Your task to perform on an android device: all mails in gmail Image 0: 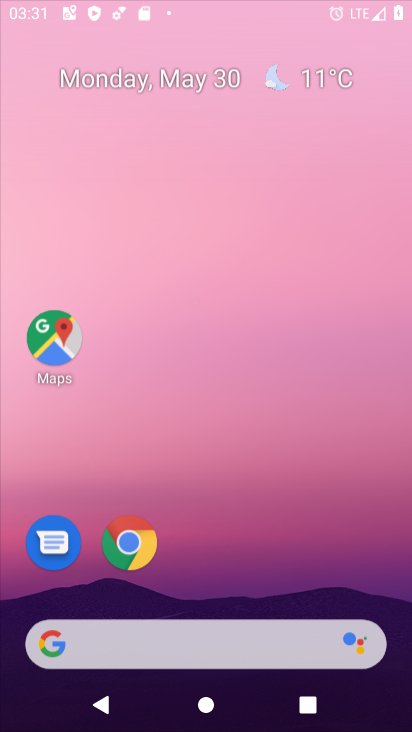
Step 0: press home button
Your task to perform on an android device: all mails in gmail Image 1: 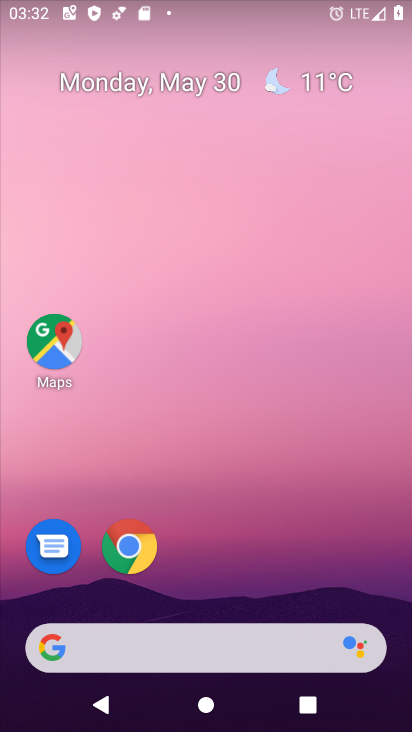
Step 1: drag from (217, 598) to (258, 10)
Your task to perform on an android device: all mails in gmail Image 2: 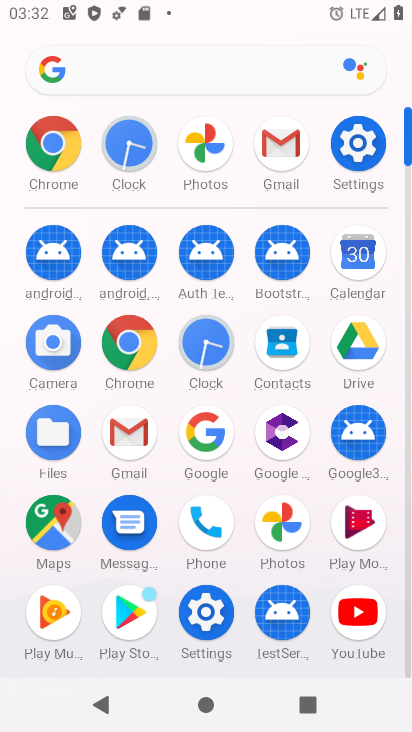
Step 2: click (289, 137)
Your task to perform on an android device: all mails in gmail Image 3: 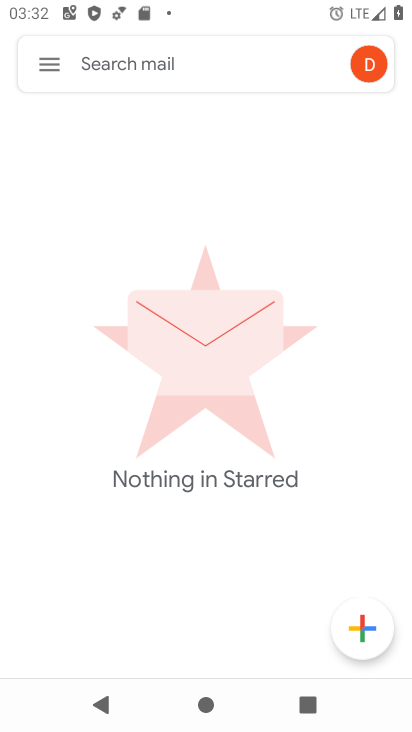
Step 3: click (66, 59)
Your task to perform on an android device: all mails in gmail Image 4: 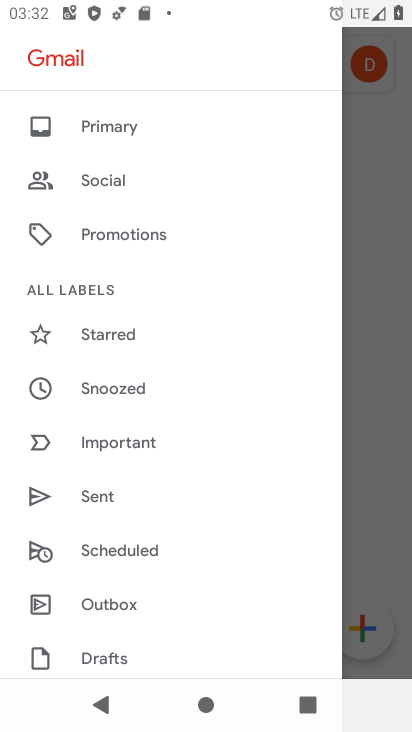
Step 4: drag from (108, 284) to (138, 160)
Your task to perform on an android device: all mails in gmail Image 5: 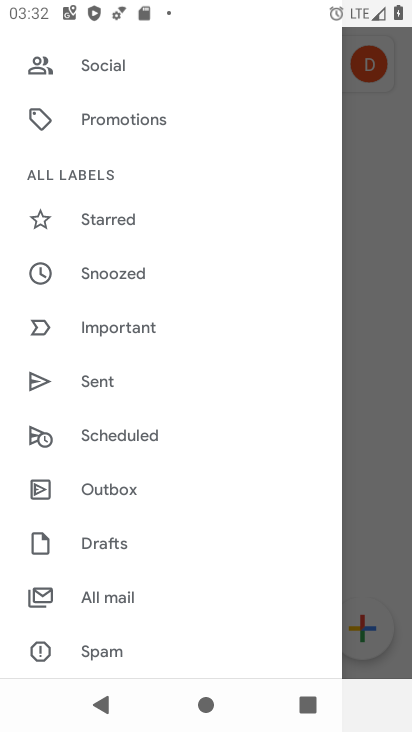
Step 5: click (111, 586)
Your task to perform on an android device: all mails in gmail Image 6: 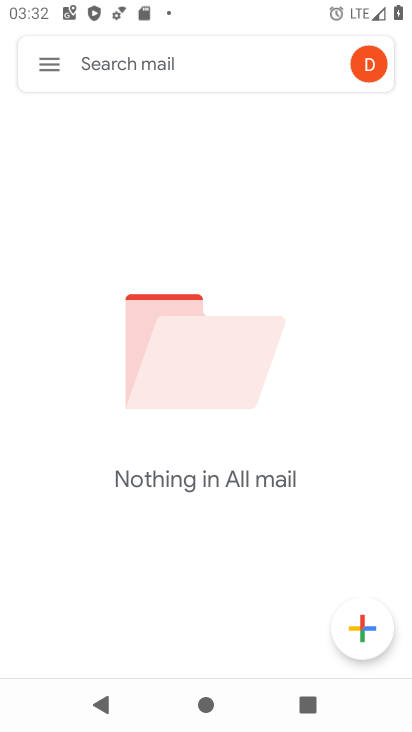
Step 6: task complete